Your task to perform on an android device: see sites visited before in the chrome app Image 0: 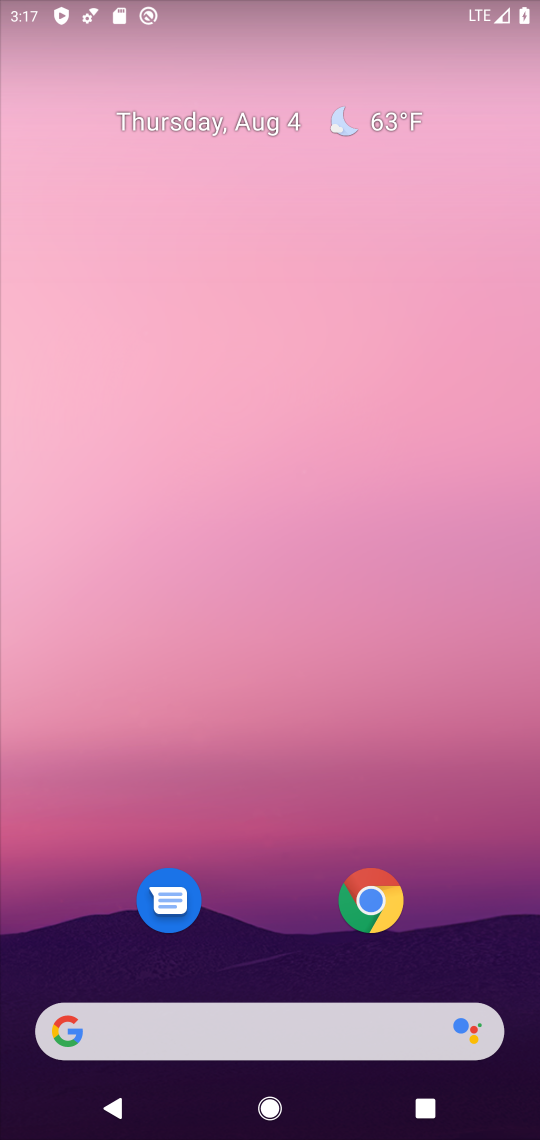
Step 0: drag from (463, 827) to (338, 245)
Your task to perform on an android device: see sites visited before in the chrome app Image 1: 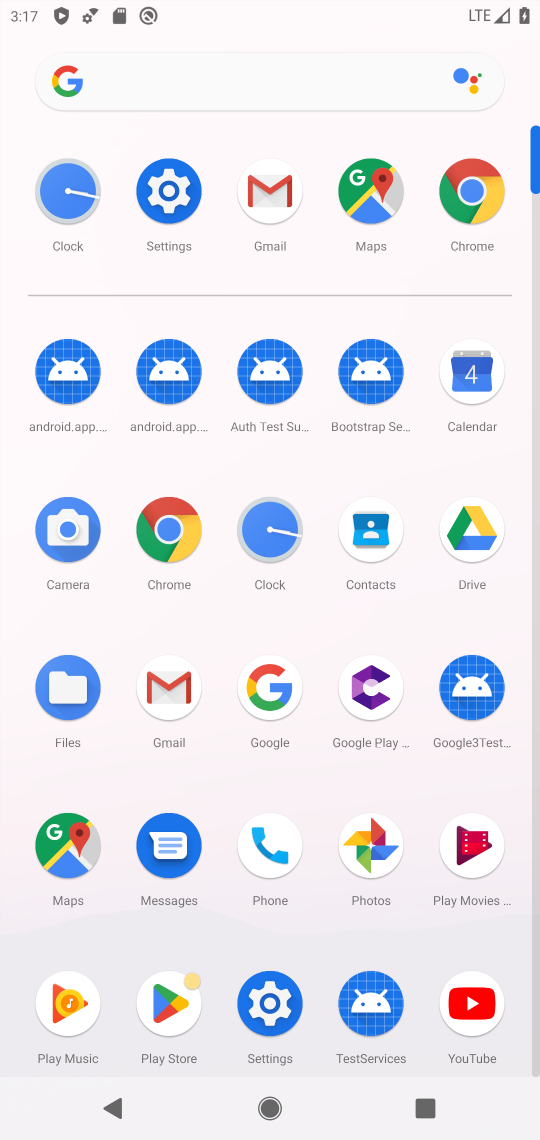
Step 1: click (487, 193)
Your task to perform on an android device: see sites visited before in the chrome app Image 2: 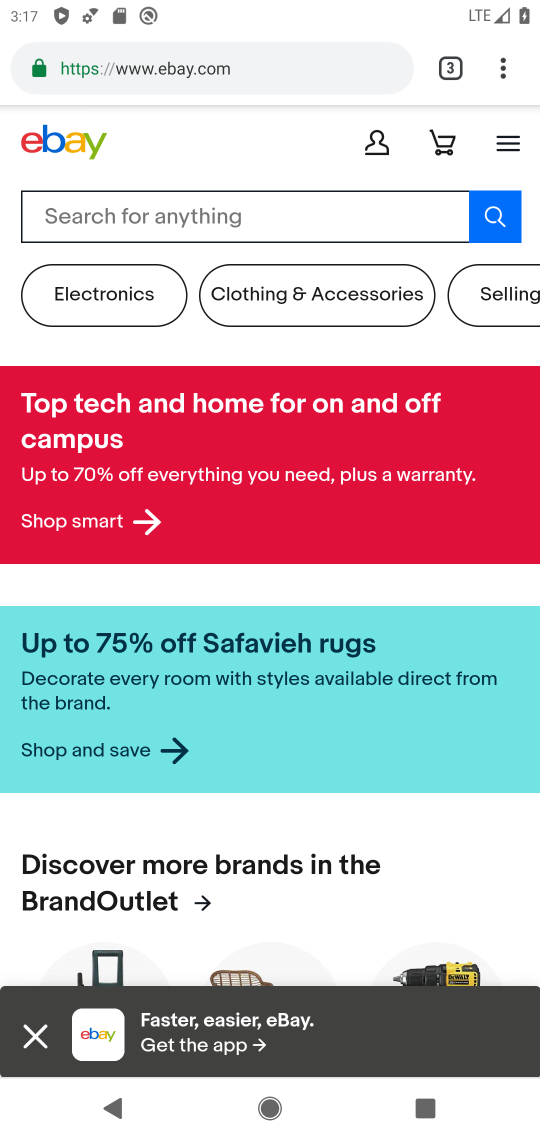
Step 2: click (503, 67)
Your task to perform on an android device: see sites visited before in the chrome app Image 3: 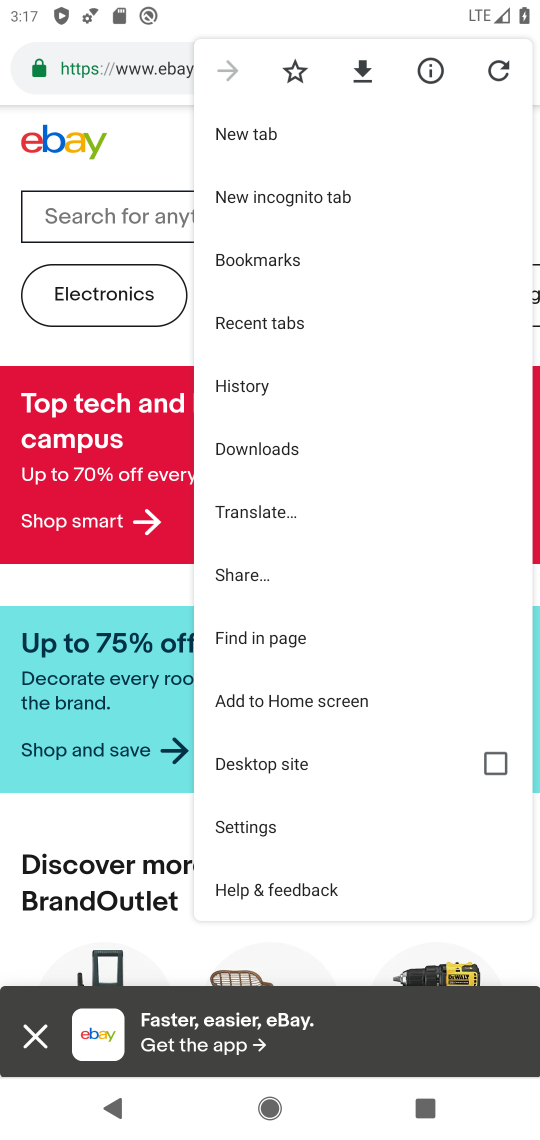
Step 3: click (264, 390)
Your task to perform on an android device: see sites visited before in the chrome app Image 4: 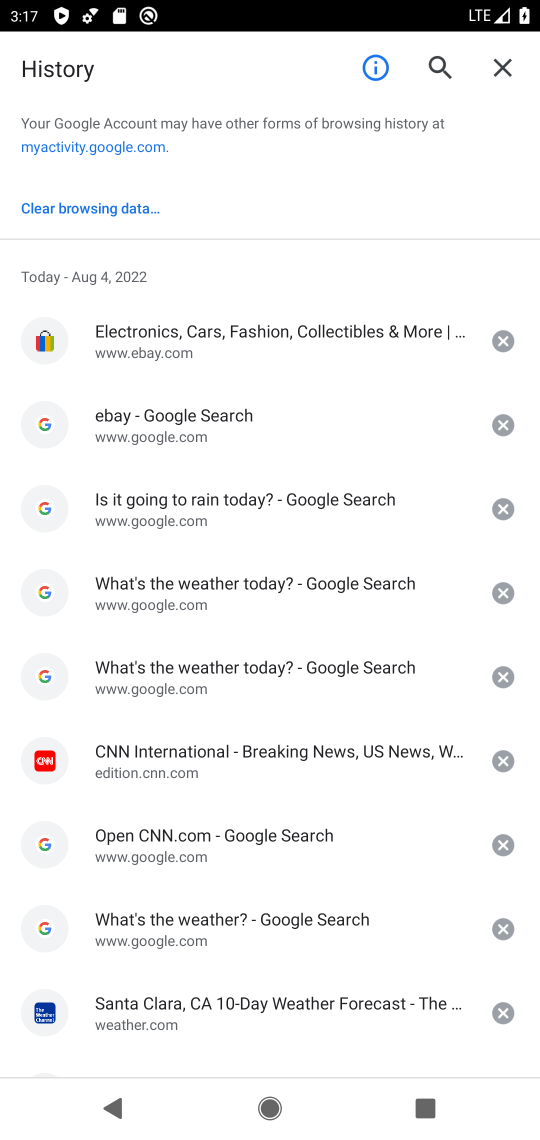
Step 4: task complete